Your task to perform on an android device: Go to Yahoo.com Image 0: 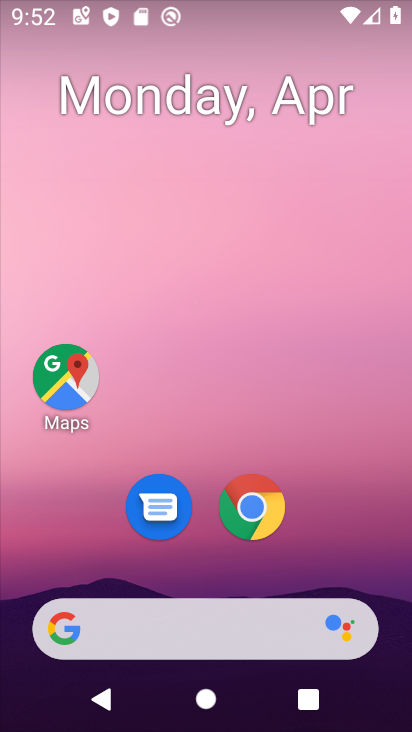
Step 0: click (266, 495)
Your task to perform on an android device: Go to Yahoo.com Image 1: 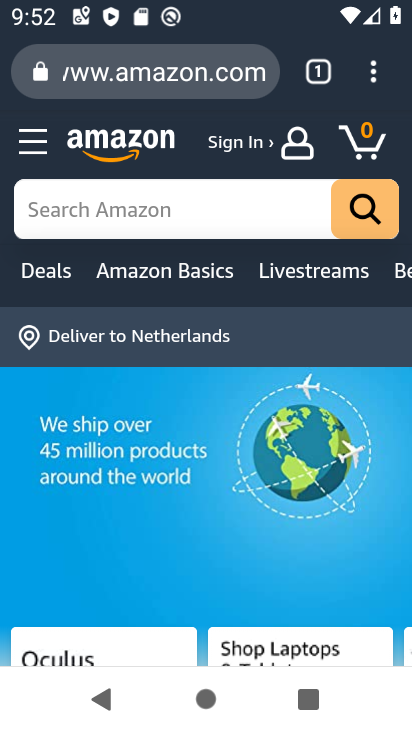
Step 1: click (322, 82)
Your task to perform on an android device: Go to Yahoo.com Image 2: 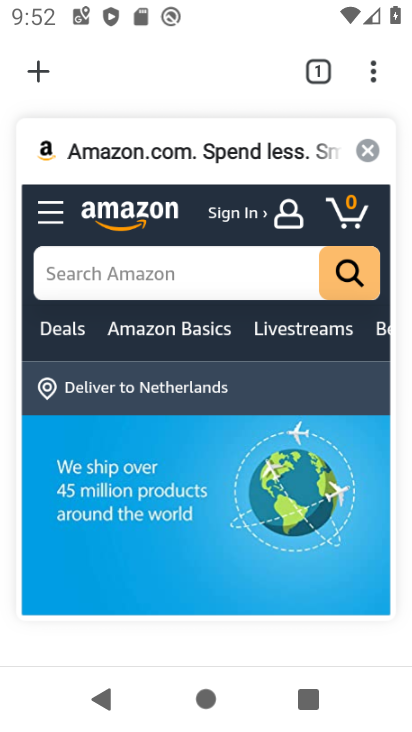
Step 2: click (364, 145)
Your task to perform on an android device: Go to Yahoo.com Image 3: 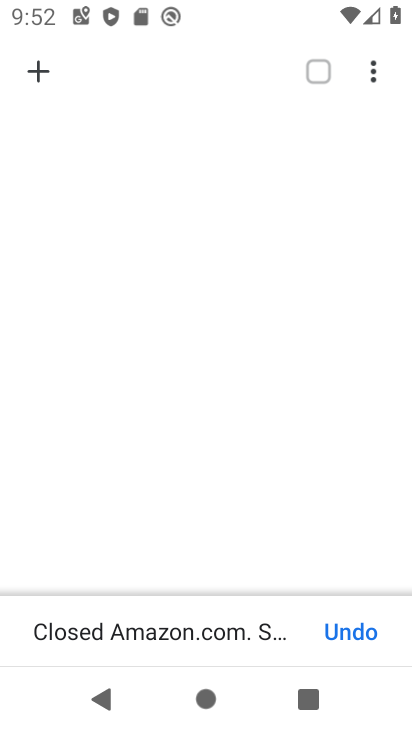
Step 3: click (37, 73)
Your task to perform on an android device: Go to Yahoo.com Image 4: 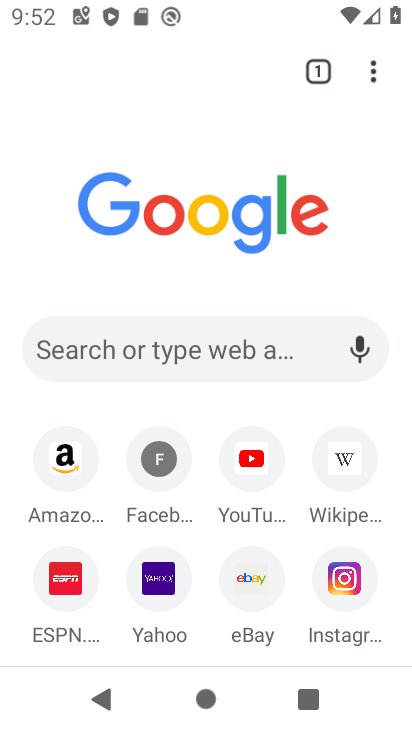
Step 4: click (150, 586)
Your task to perform on an android device: Go to Yahoo.com Image 5: 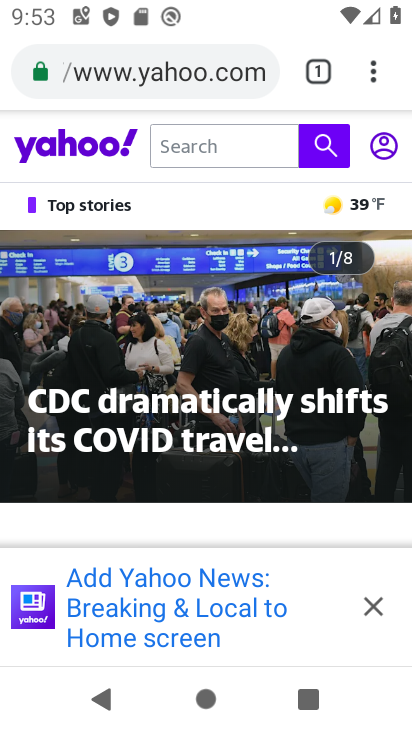
Step 5: task complete